Your task to perform on an android device: Open my contact list Image 0: 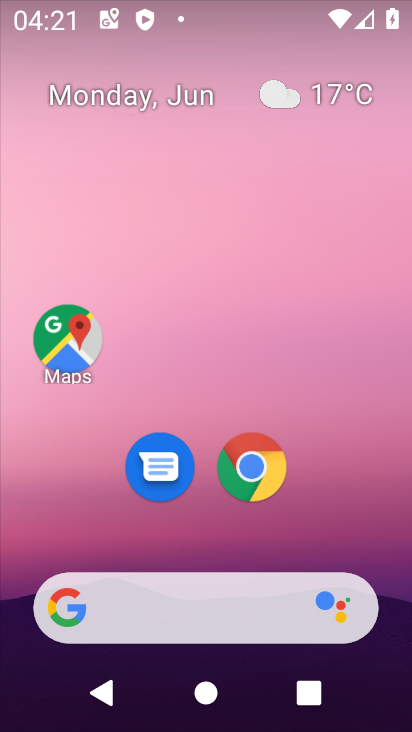
Step 0: drag from (207, 547) to (367, 0)
Your task to perform on an android device: Open my contact list Image 1: 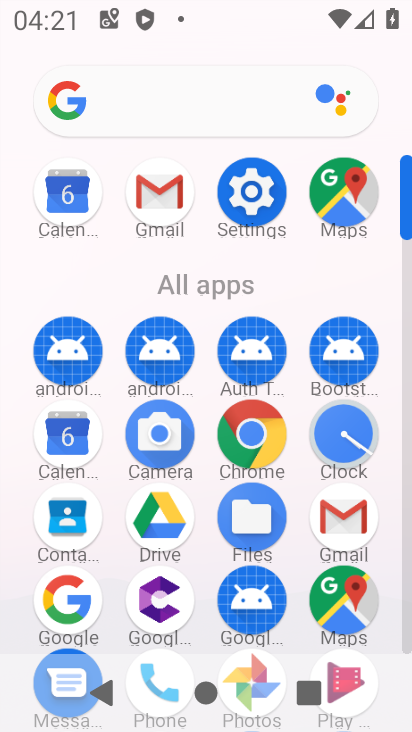
Step 1: click (65, 537)
Your task to perform on an android device: Open my contact list Image 2: 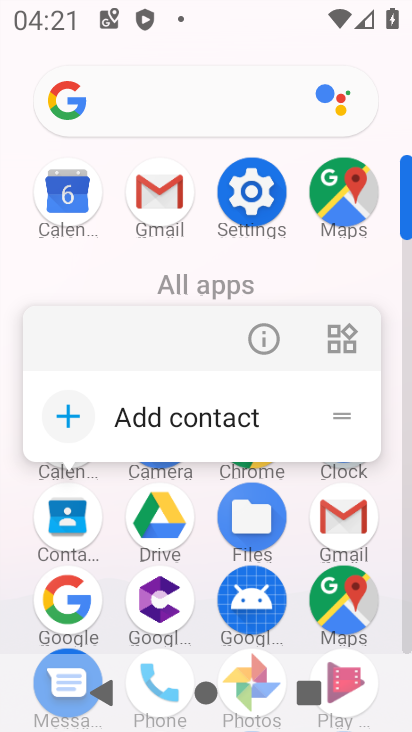
Step 2: click (71, 517)
Your task to perform on an android device: Open my contact list Image 3: 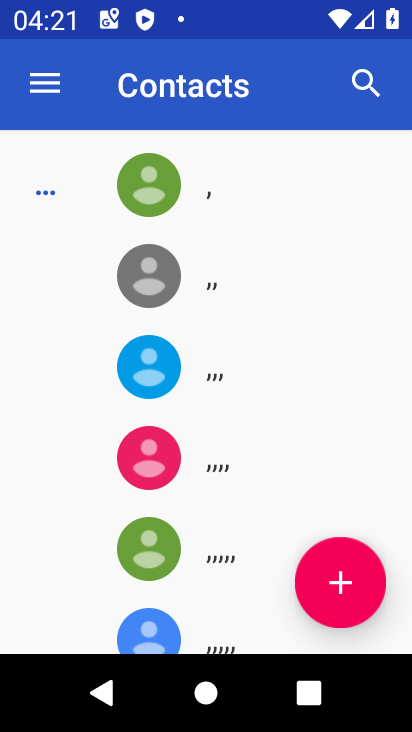
Step 3: task complete